Your task to perform on an android device: Go to Wikipedia Image 0: 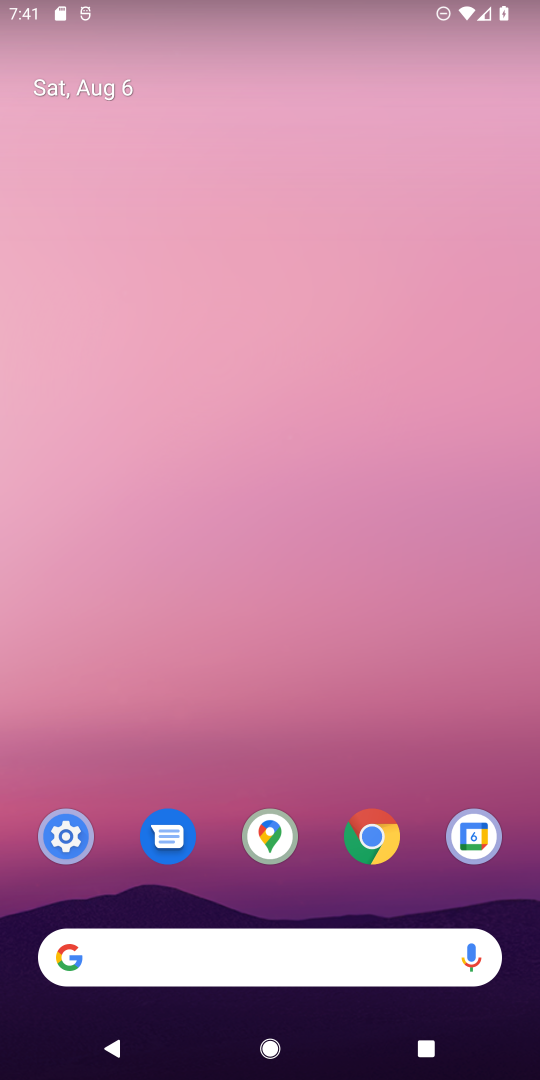
Step 0: click (373, 858)
Your task to perform on an android device: Go to Wikipedia Image 1: 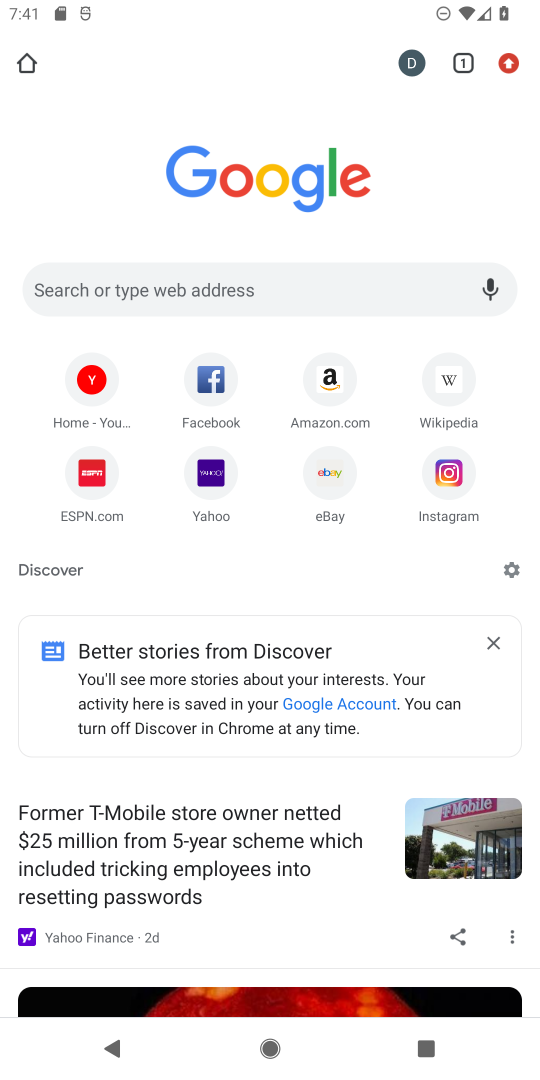
Step 1: click (514, 385)
Your task to perform on an android device: Go to Wikipedia Image 2: 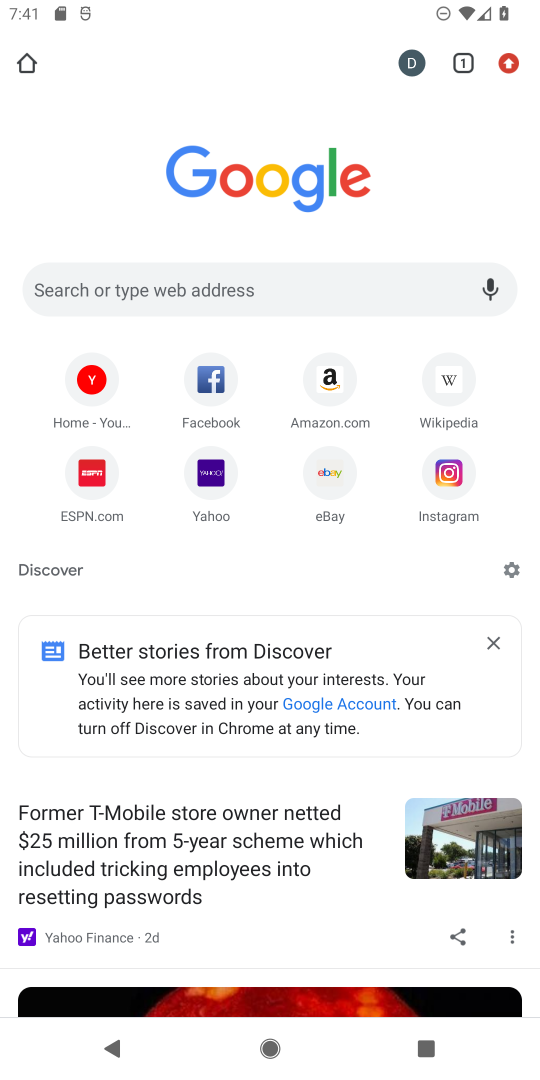
Step 2: click (461, 389)
Your task to perform on an android device: Go to Wikipedia Image 3: 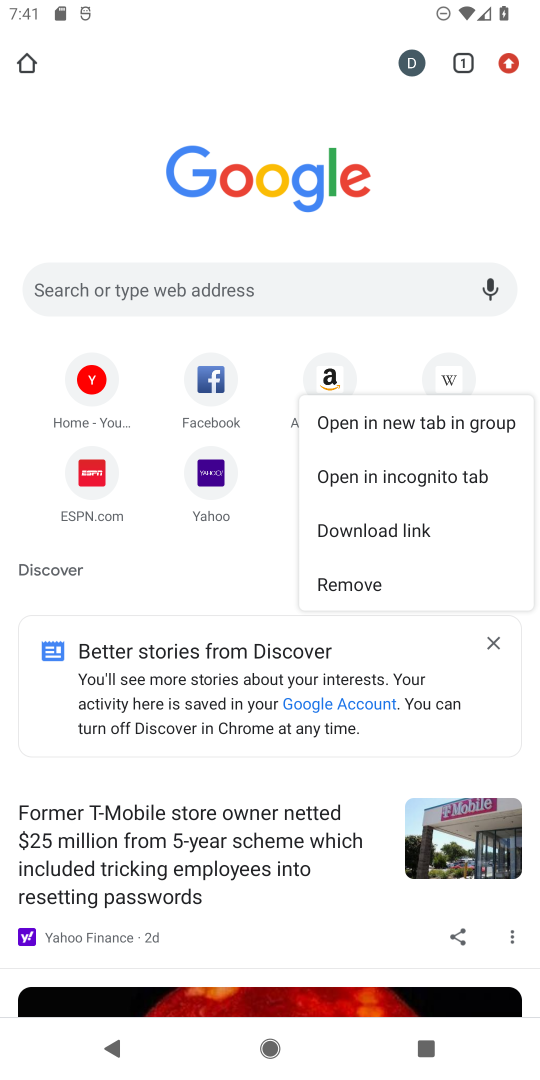
Step 3: click (445, 386)
Your task to perform on an android device: Go to Wikipedia Image 4: 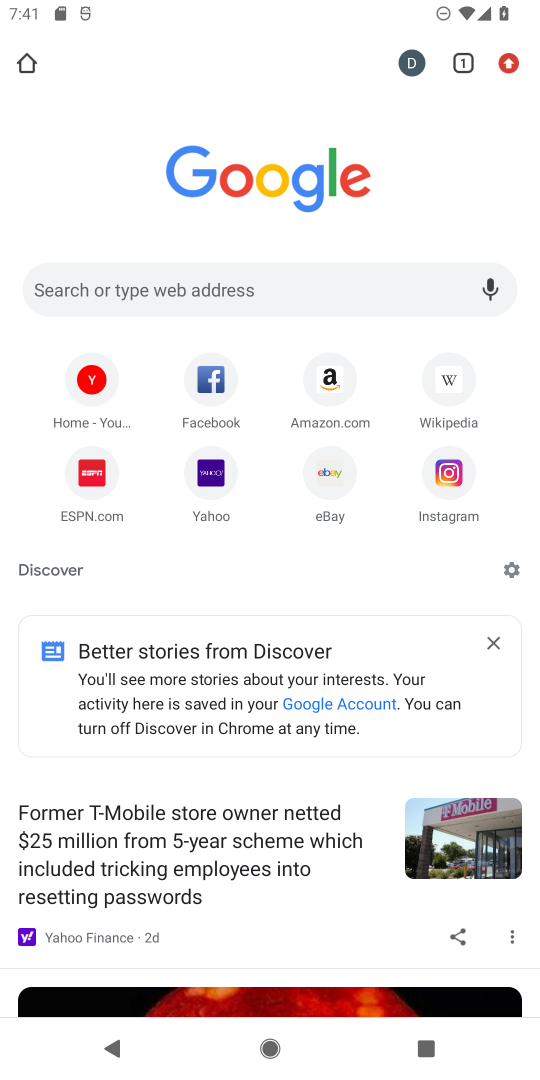
Step 4: click (453, 375)
Your task to perform on an android device: Go to Wikipedia Image 5: 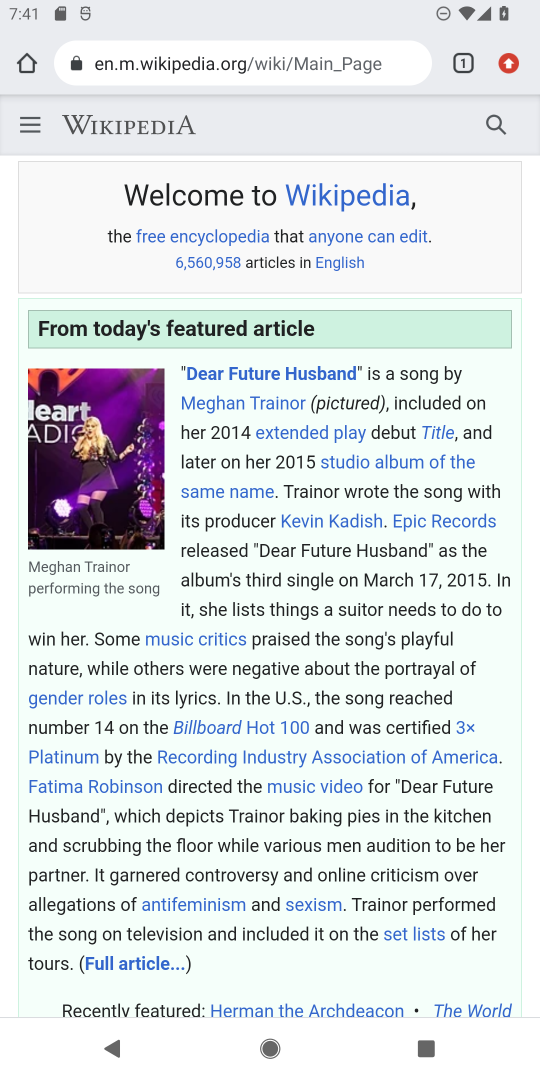
Step 5: task complete